Your task to perform on an android device: Open the calendar app, open the side menu, and click the "Day" option Image 0: 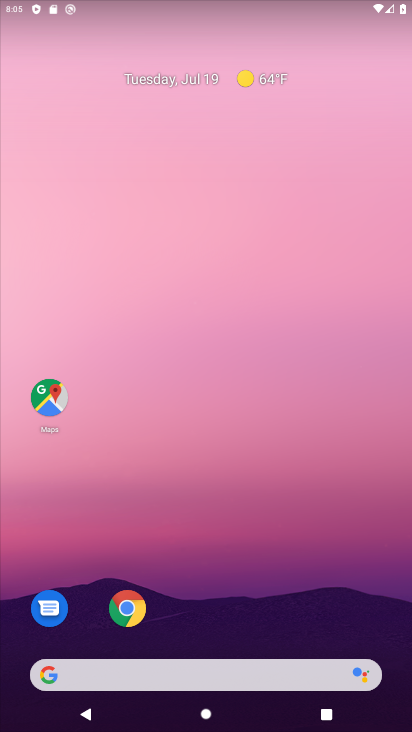
Step 0: drag from (193, 674) to (224, 59)
Your task to perform on an android device: Open the calendar app, open the side menu, and click the "Day" option Image 1: 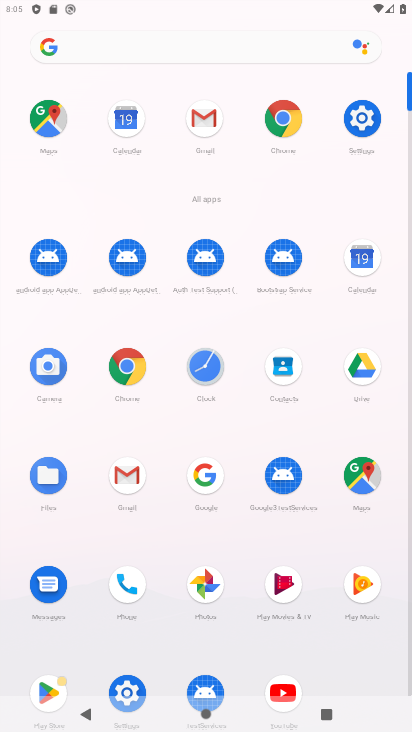
Step 1: click (346, 261)
Your task to perform on an android device: Open the calendar app, open the side menu, and click the "Day" option Image 2: 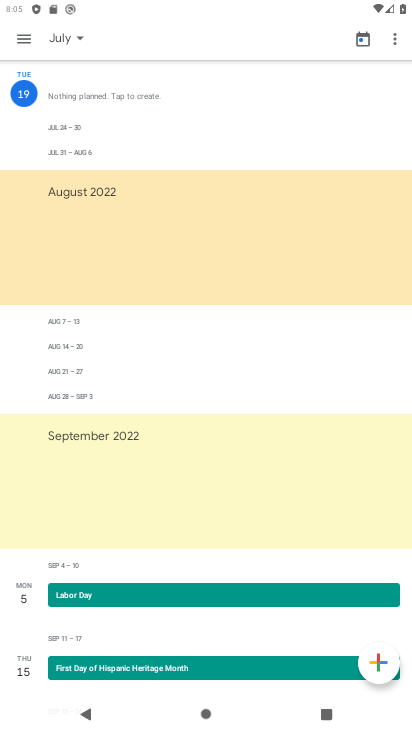
Step 2: click (24, 38)
Your task to perform on an android device: Open the calendar app, open the side menu, and click the "Day" option Image 3: 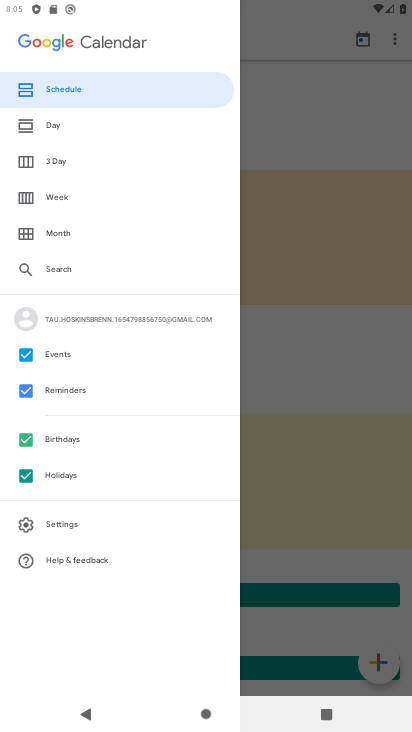
Step 3: click (68, 122)
Your task to perform on an android device: Open the calendar app, open the side menu, and click the "Day" option Image 4: 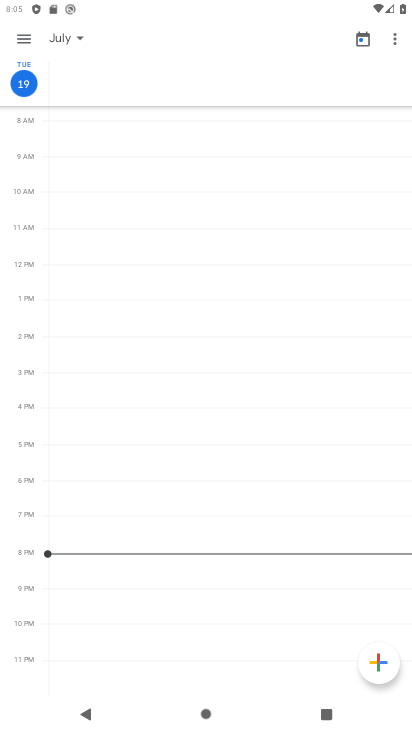
Step 4: task complete